Your task to perform on an android device: search for starred emails in the gmail app Image 0: 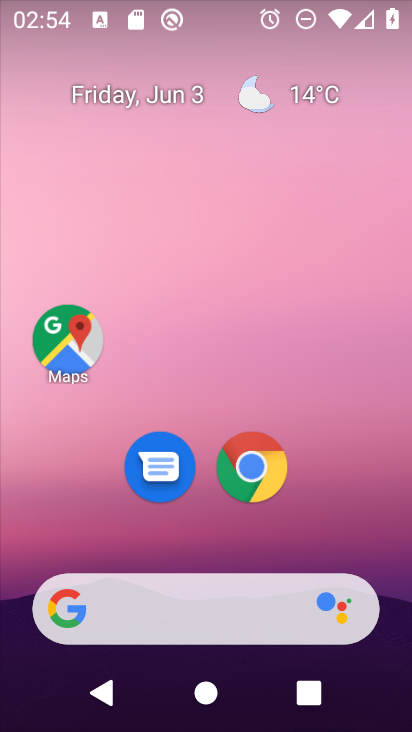
Step 0: drag from (392, 607) to (340, 197)
Your task to perform on an android device: search for starred emails in the gmail app Image 1: 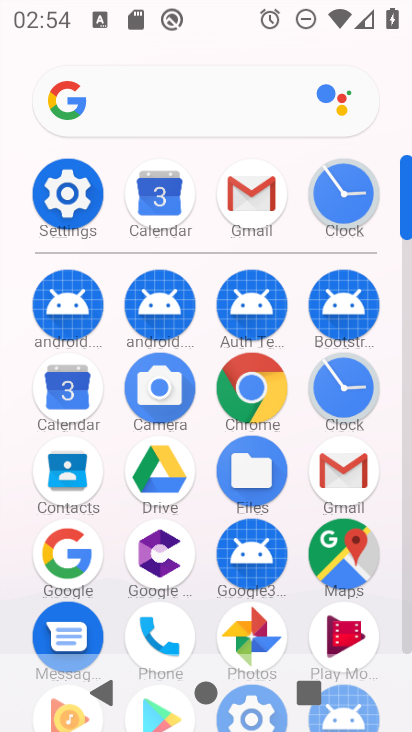
Step 1: click (408, 636)
Your task to perform on an android device: search for starred emails in the gmail app Image 2: 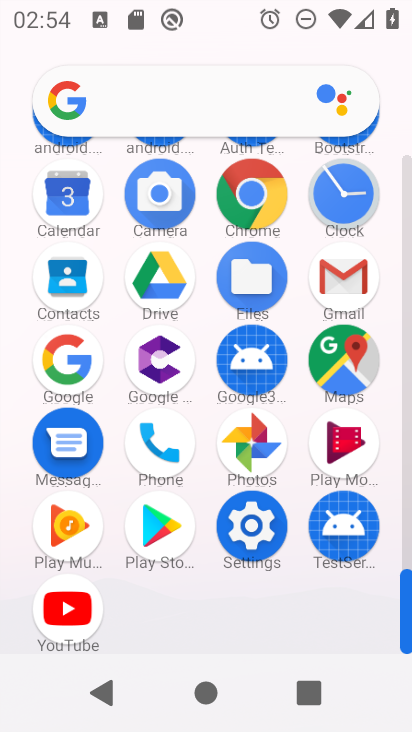
Step 2: click (342, 276)
Your task to perform on an android device: search for starred emails in the gmail app Image 3: 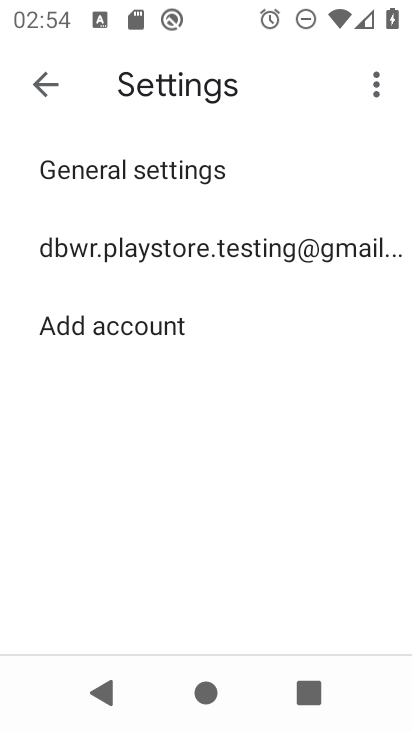
Step 3: click (144, 253)
Your task to perform on an android device: search for starred emails in the gmail app Image 4: 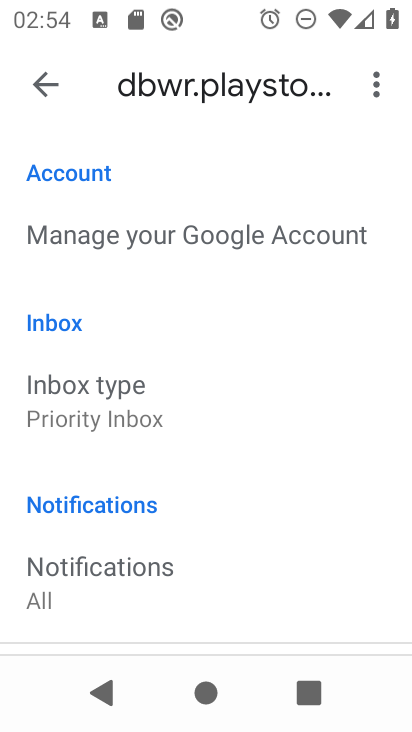
Step 4: press back button
Your task to perform on an android device: search for starred emails in the gmail app Image 5: 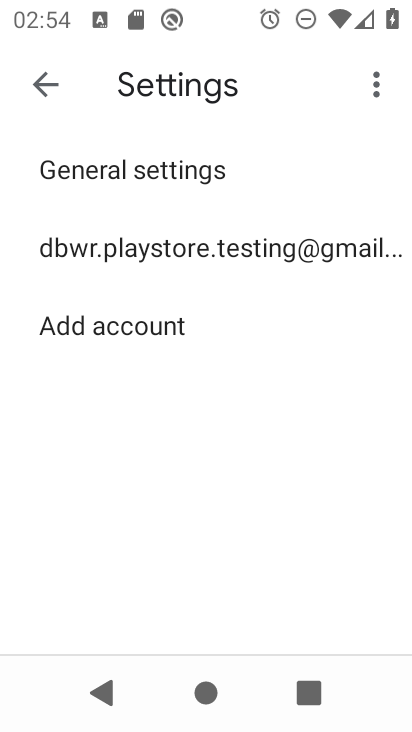
Step 5: press back button
Your task to perform on an android device: search for starred emails in the gmail app Image 6: 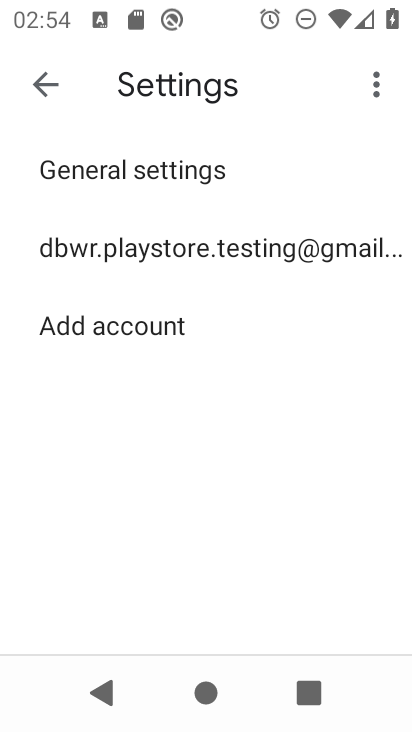
Step 6: press back button
Your task to perform on an android device: search for starred emails in the gmail app Image 7: 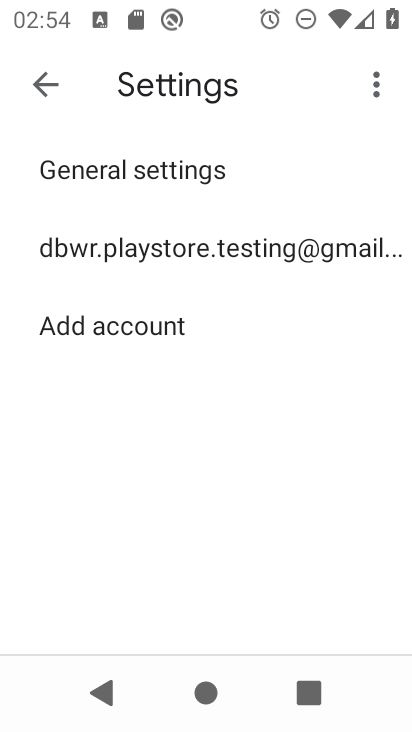
Step 7: press back button
Your task to perform on an android device: search for starred emails in the gmail app Image 8: 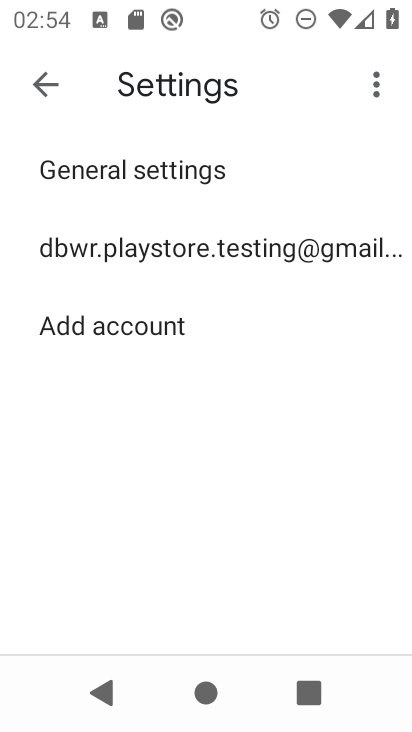
Step 8: press back button
Your task to perform on an android device: search for starred emails in the gmail app Image 9: 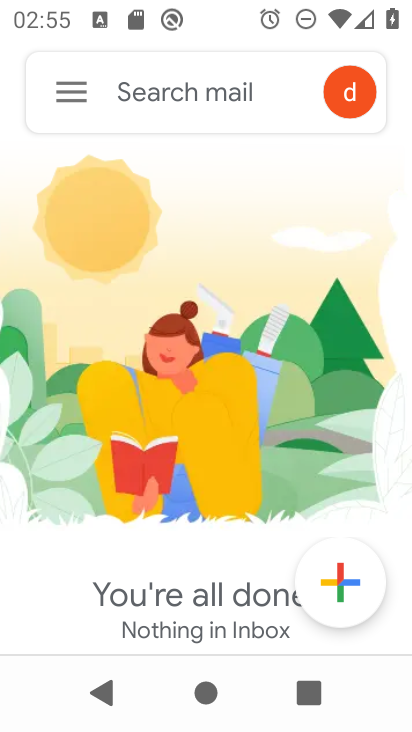
Step 9: click (67, 86)
Your task to perform on an android device: search for starred emails in the gmail app Image 10: 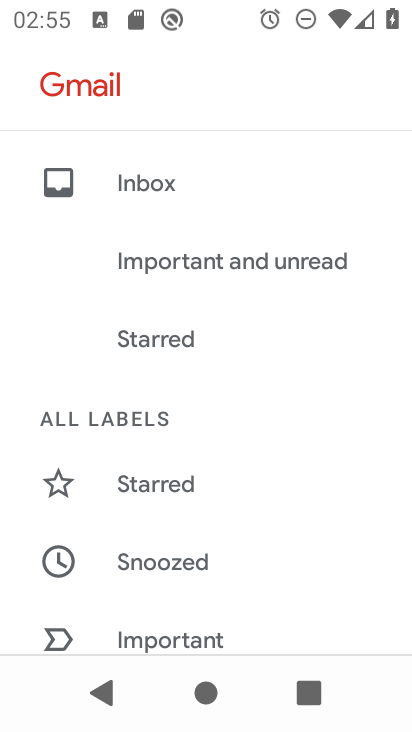
Step 10: click (159, 480)
Your task to perform on an android device: search for starred emails in the gmail app Image 11: 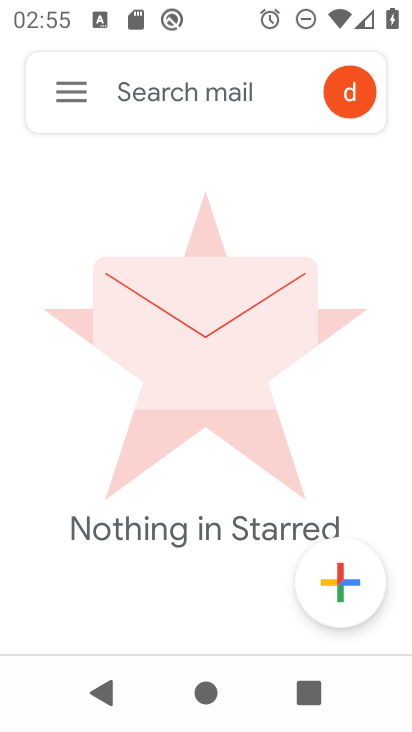
Step 11: task complete